Your task to perform on an android device: Go to display settings Image 0: 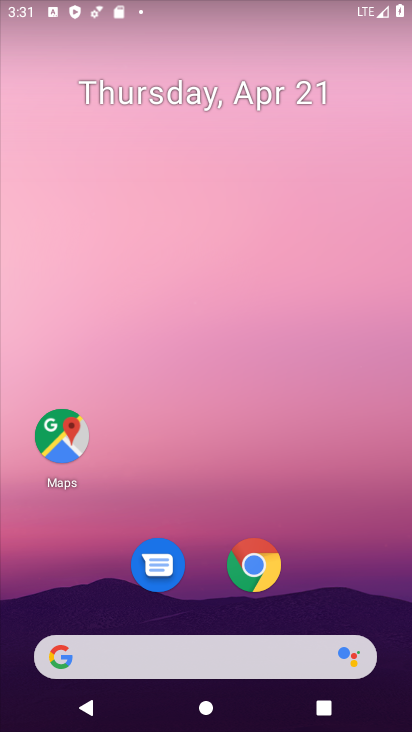
Step 0: drag from (344, 466) to (348, 90)
Your task to perform on an android device: Go to display settings Image 1: 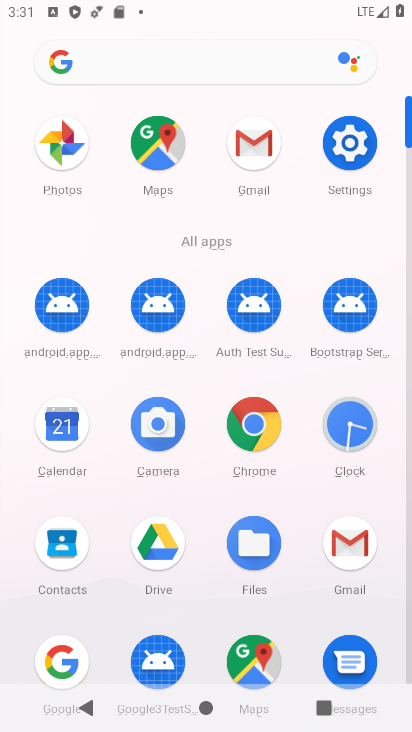
Step 1: click (348, 143)
Your task to perform on an android device: Go to display settings Image 2: 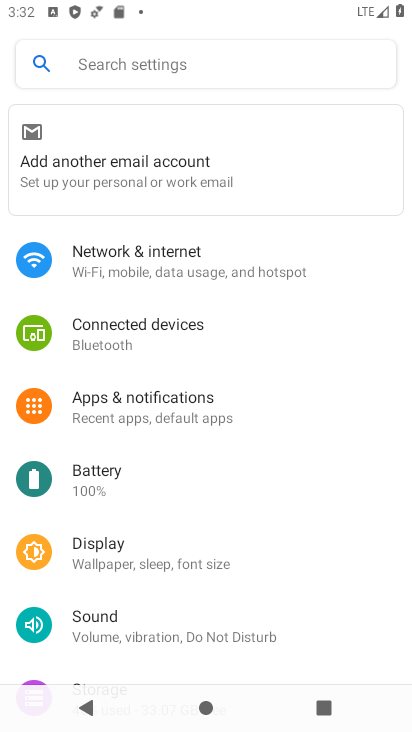
Step 2: click (168, 545)
Your task to perform on an android device: Go to display settings Image 3: 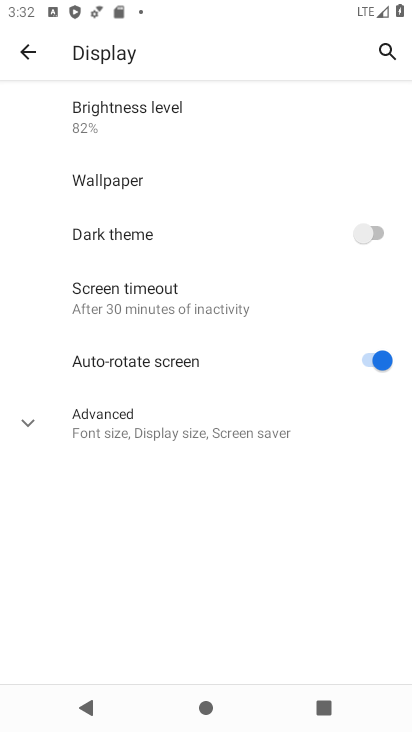
Step 3: task complete